Your task to perform on an android device: Go to settings Image 0: 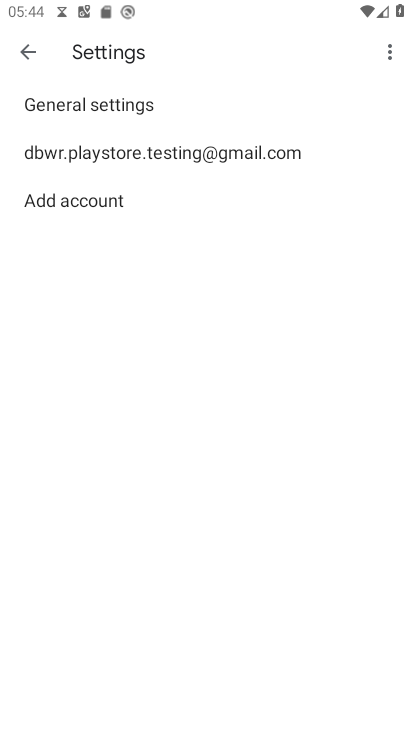
Step 0: press home button
Your task to perform on an android device: Go to settings Image 1: 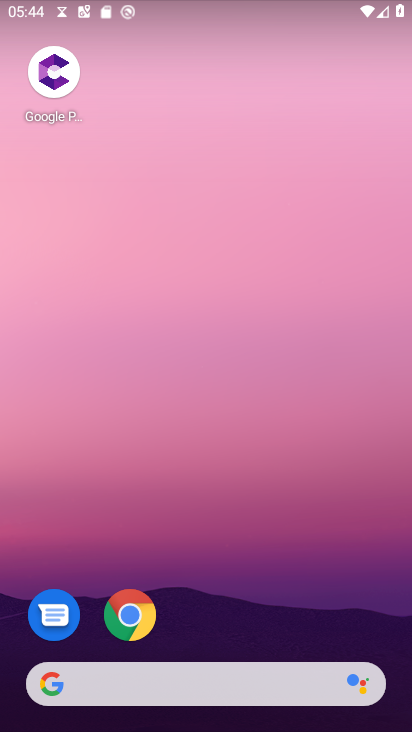
Step 1: drag from (321, 667) to (266, 10)
Your task to perform on an android device: Go to settings Image 2: 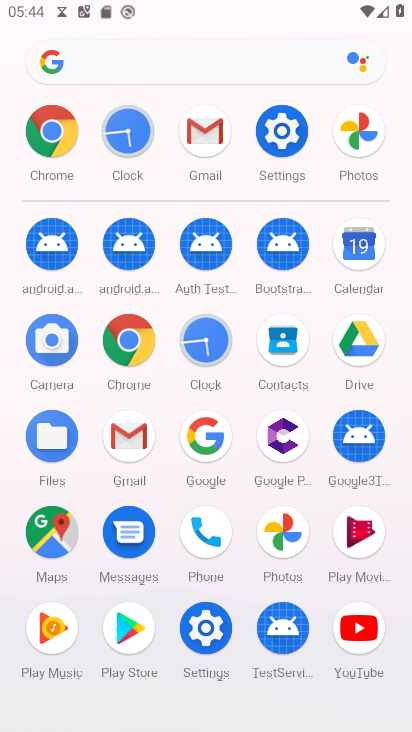
Step 2: click (283, 144)
Your task to perform on an android device: Go to settings Image 3: 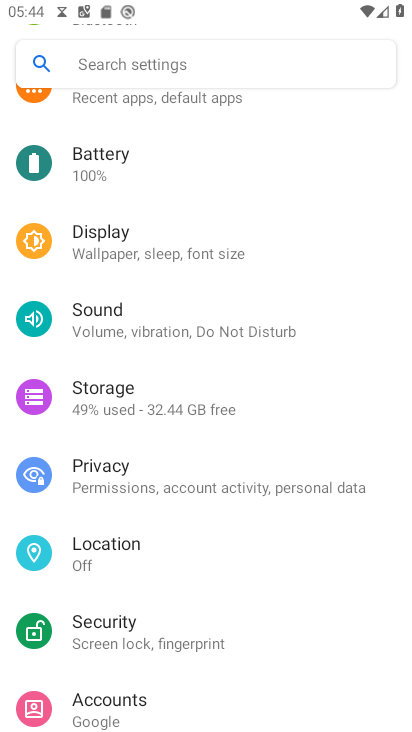
Step 3: task complete